Your task to perform on an android device: move an email to a new category in the gmail app Image 0: 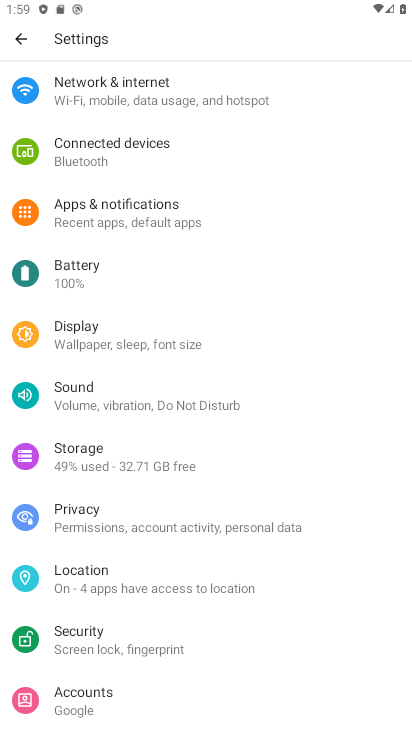
Step 0: press home button
Your task to perform on an android device: move an email to a new category in the gmail app Image 1: 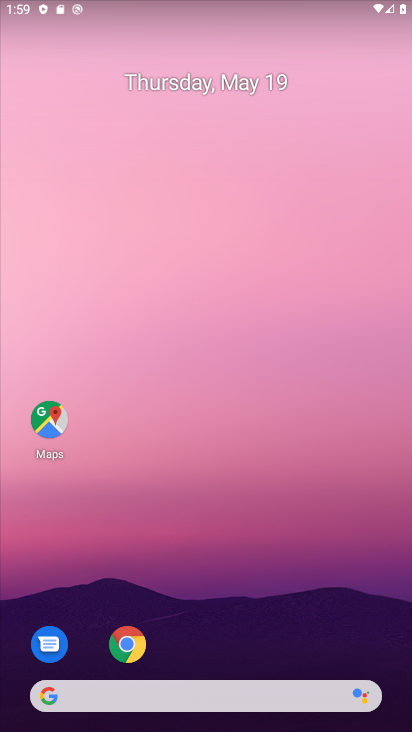
Step 1: drag from (286, 597) to (302, 233)
Your task to perform on an android device: move an email to a new category in the gmail app Image 2: 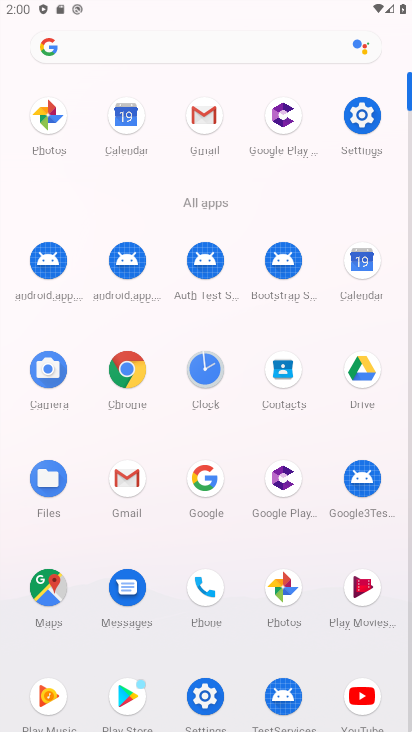
Step 2: click (125, 468)
Your task to perform on an android device: move an email to a new category in the gmail app Image 3: 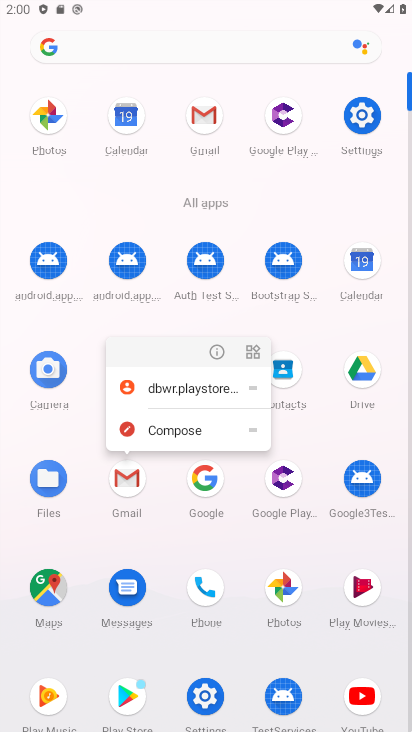
Step 3: click (124, 469)
Your task to perform on an android device: move an email to a new category in the gmail app Image 4: 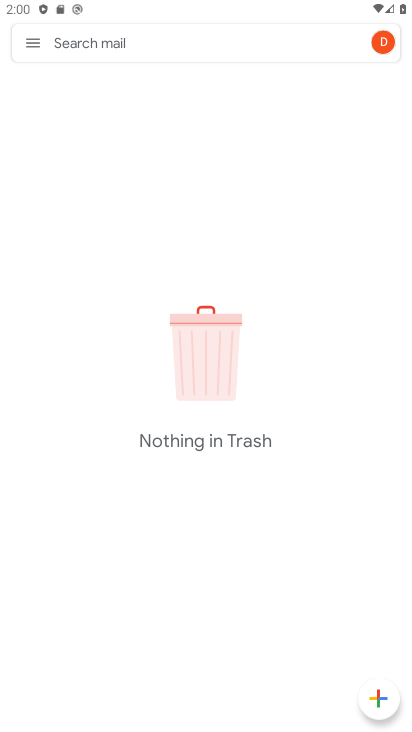
Step 4: click (32, 45)
Your task to perform on an android device: move an email to a new category in the gmail app Image 5: 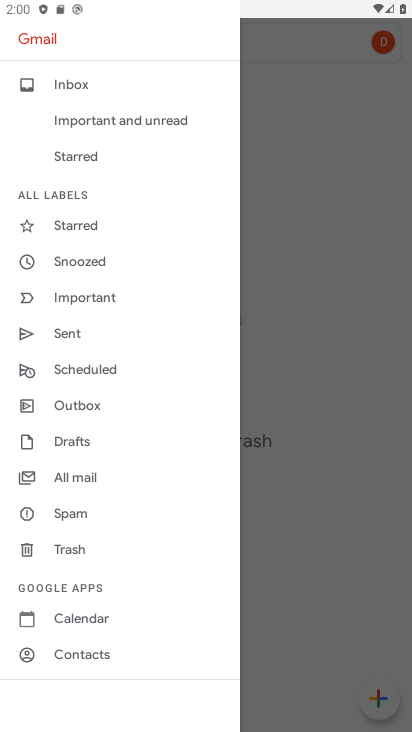
Step 5: click (64, 475)
Your task to perform on an android device: move an email to a new category in the gmail app Image 6: 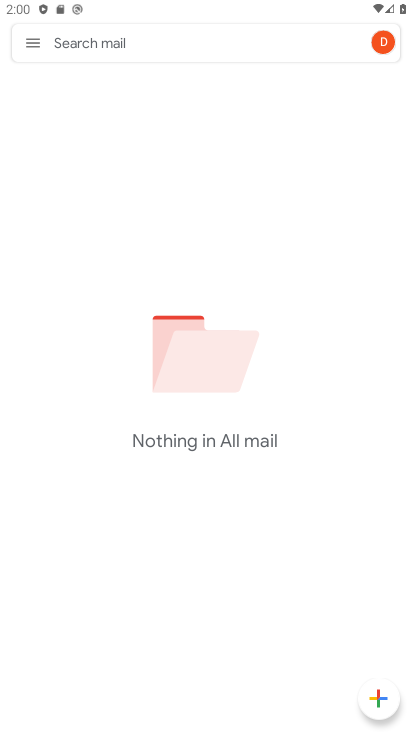
Step 6: task complete